Your task to perform on an android device: toggle sleep mode Image 0: 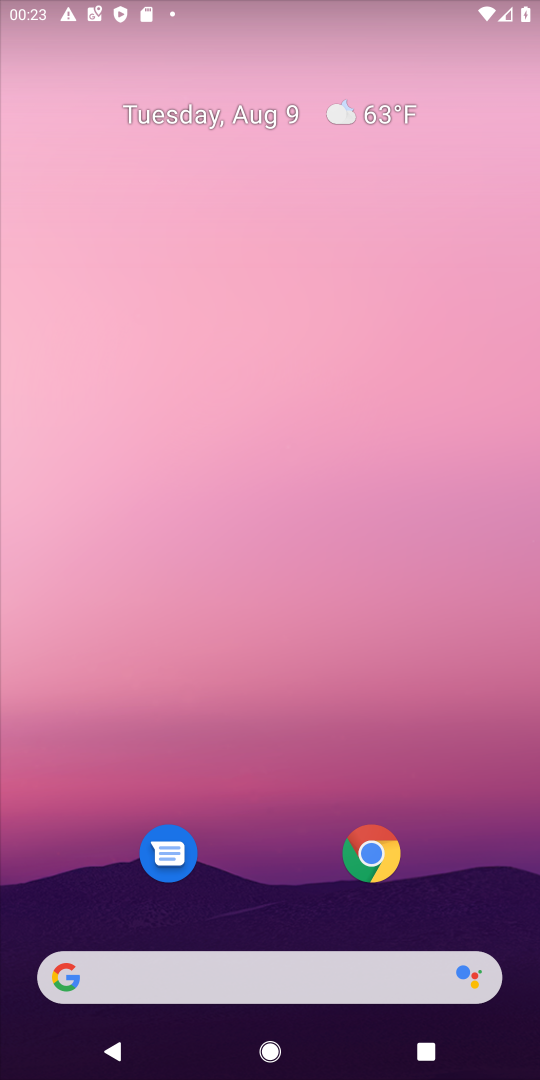
Step 0: press home button
Your task to perform on an android device: toggle sleep mode Image 1: 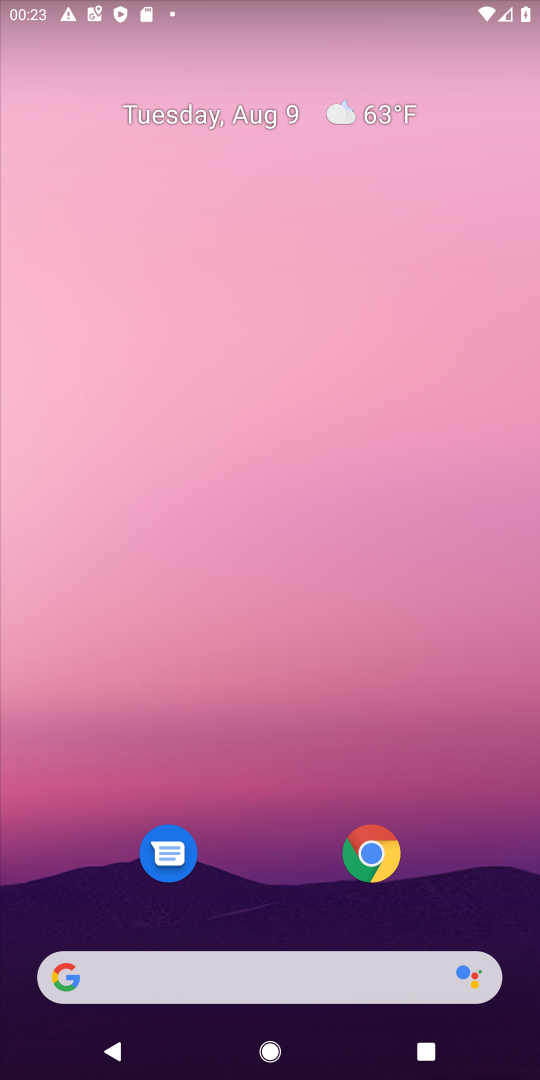
Step 1: drag from (254, 841) to (366, 37)
Your task to perform on an android device: toggle sleep mode Image 2: 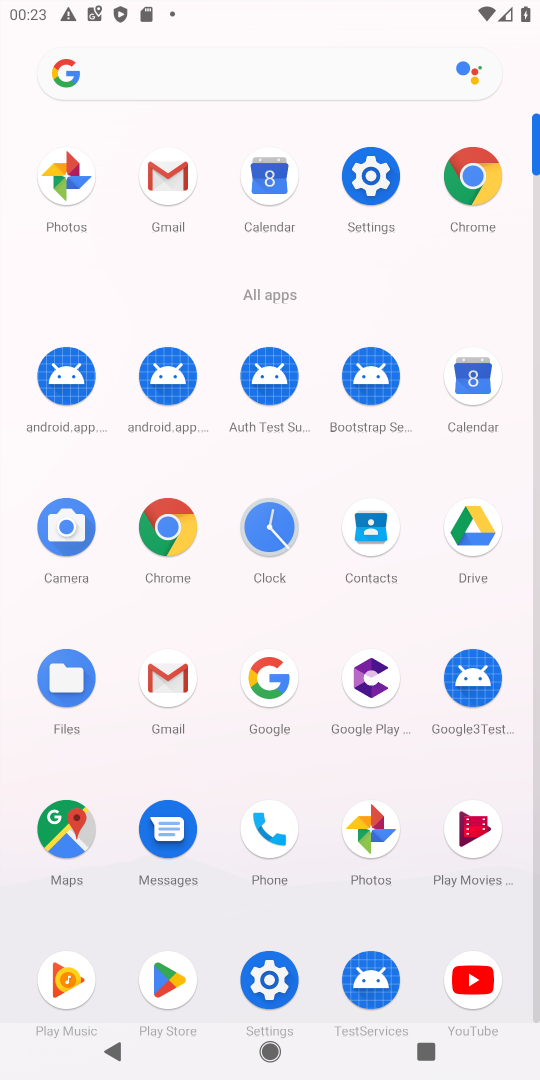
Step 2: click (367, 178)
Your task to perform on an android device: toggle sleep mode Image 3: 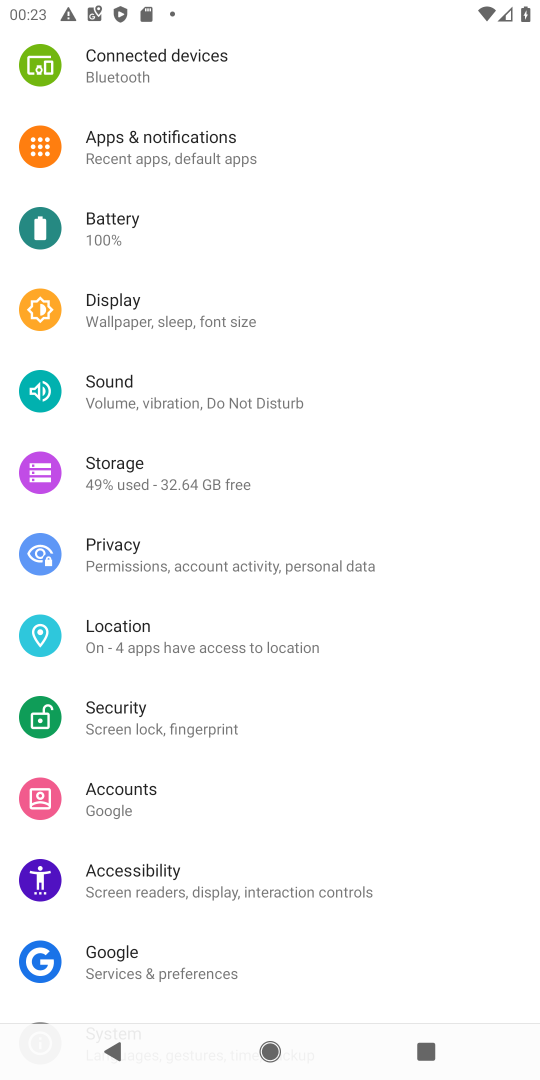
Step 3: click (180, 329)
Your task to perform on an android device: toggle sleep mode Image 4: 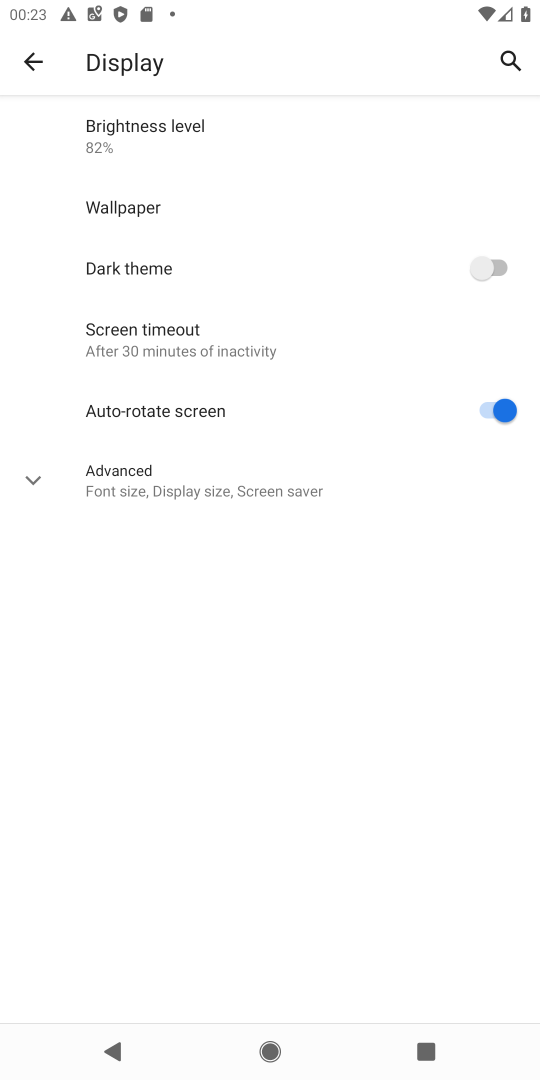
Step 4: click (216, 502)
Your task to perform on an android device: toggle sleep mode Image 5: 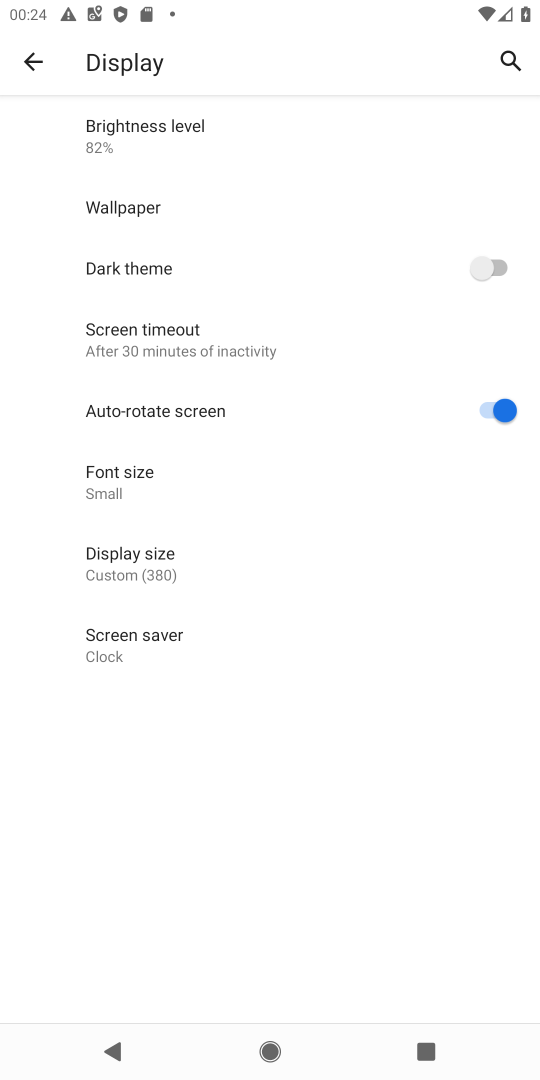
Step 5: task complete